Your task to perform on an android device: read, delete, or share a saved page in the chrome app Image 0: 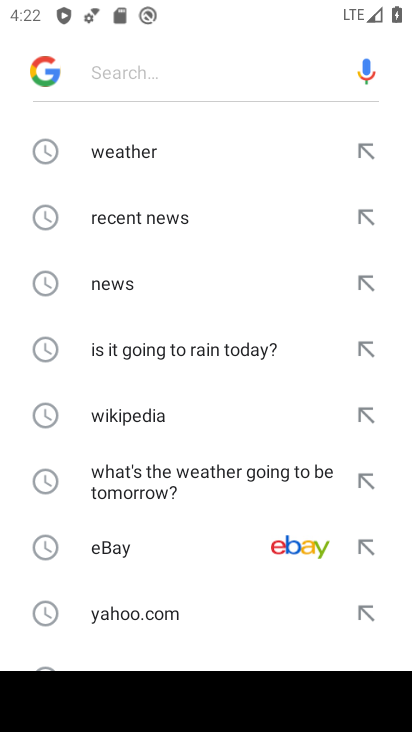
Step 0: press home button
Your task to perform on an android device: read, delete, or share a saved page in the chrome app Image 1: 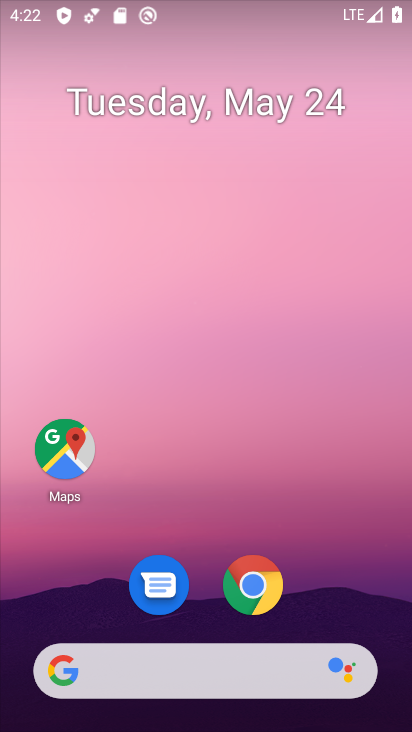
Step 1: drag from (221, 459) to (254, 36)
Your task to perform on an android device: read, delete, or share a saved page in the chrome app Image 2: 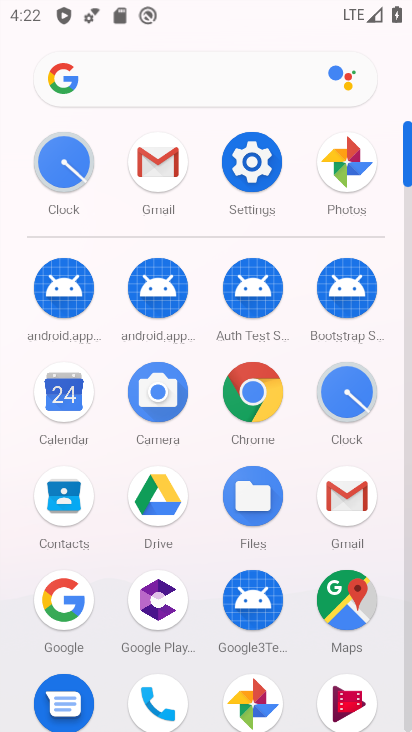
Step 2: click (256, 380)
Your task to perform on an android device: read, delete, or share a saved page in the chrome app Image 3: 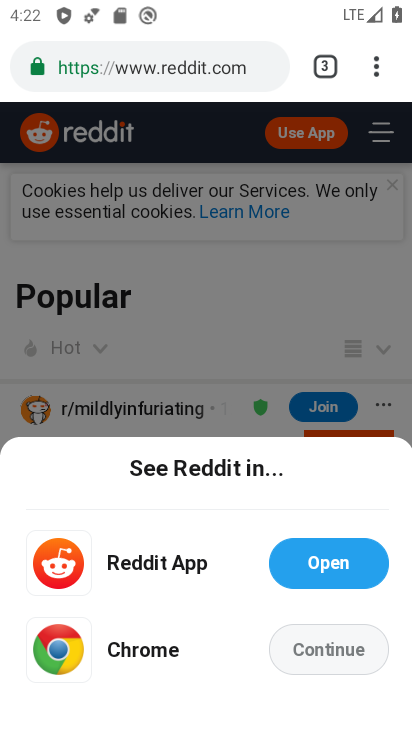
Step 3: click (374, 61)
Your task to perform on an android device: read, delete, or share a saved page in the chrome app Image 4: 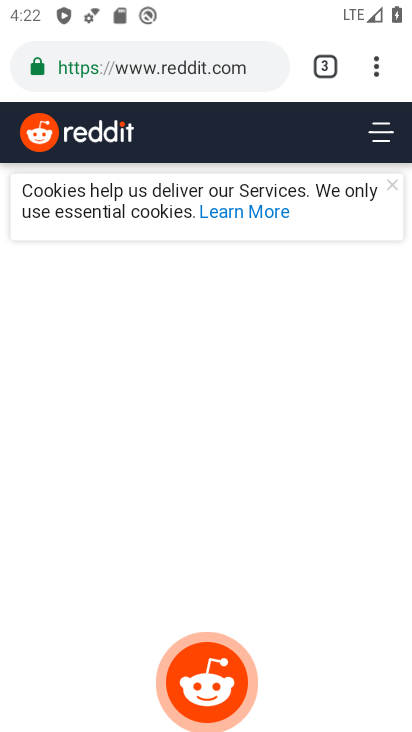
Step 4: click (372, 63)
Your task to perform on an android device: read, delete, or share a saved page in the chrome app Image 5: 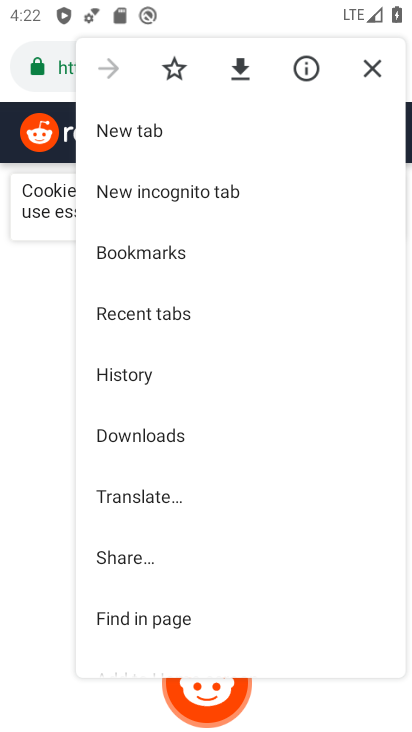
Step 5: click (165, 424)
Your task to perform on an android device: read, delete, or share a saved page in the chrome app Image 6: 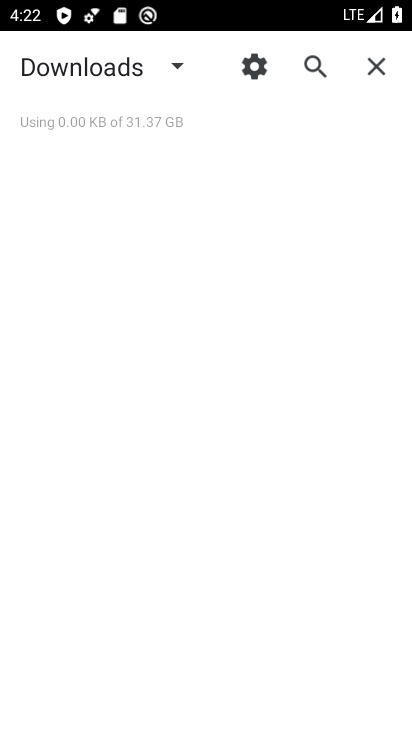
Step 6: task complete